Your task to perform on an android device: turn off picture-in-picture Image 0: 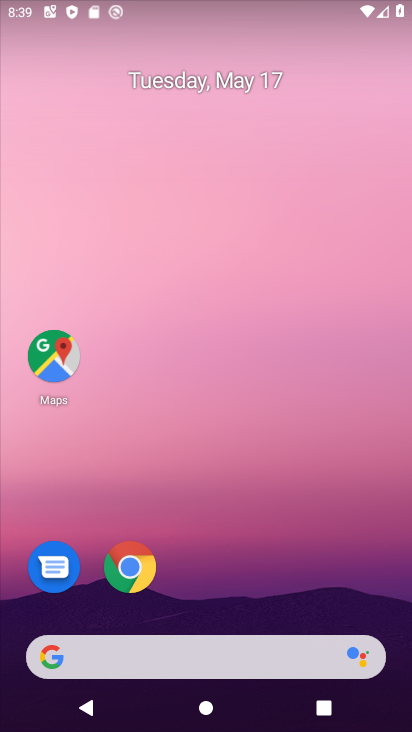
Step 0: drag from (260, 493) to (196, 118)
Your task to perform on an android device: turn off picture-in-picture Image 1: 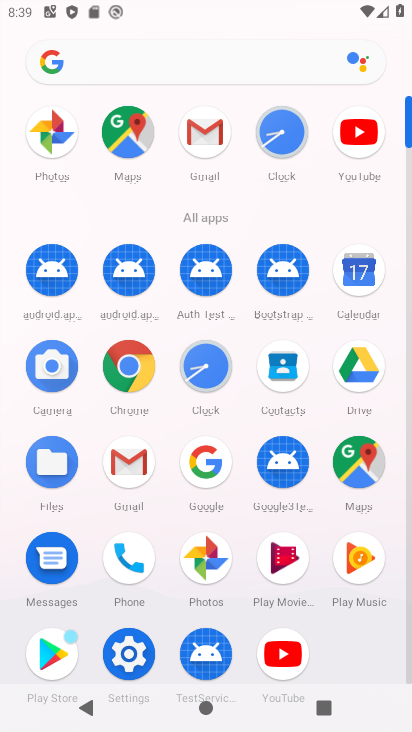
Step 1: click (122, 663)
Your task to perform on an android device: turn off picture-in-picture Image 2: 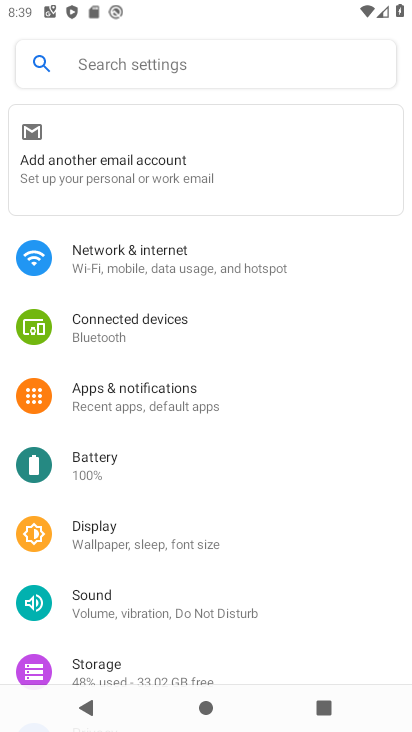
Step 2: click (113, 387)
Your task to perform on an android device: turn off picture-in-picture Image 3: 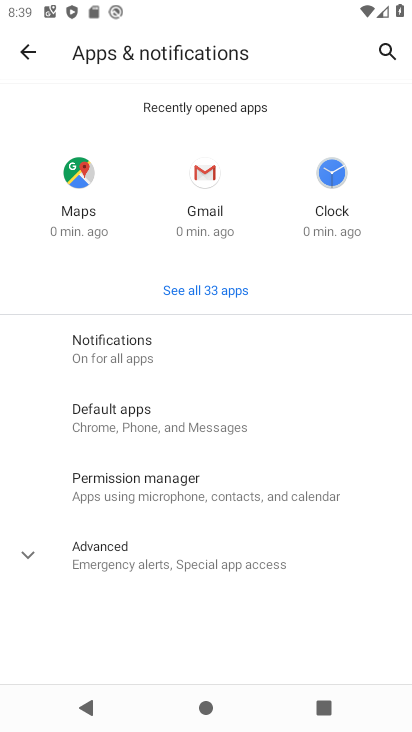
Step 3: click (86, 554)
Your task to perform on an android device: turn off picture-in-picture Image 4: 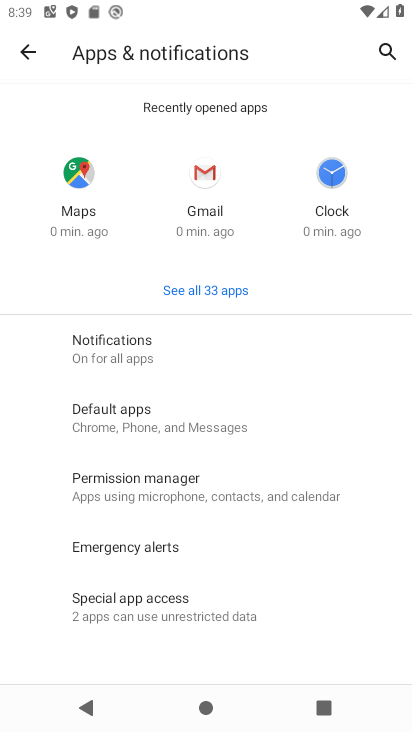
Step 4: drag from (210, 566) to (155, 376)
Your task to perform on an android device: turn off picture-in-picture Image 5: 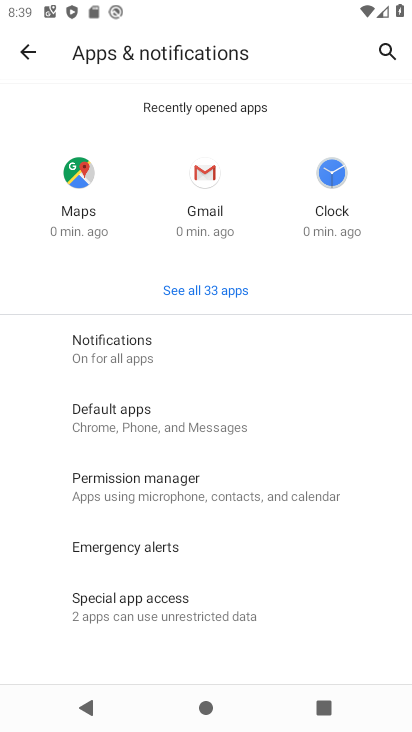
Step 5: click (114, 598)
Your task to perform on an android device: turn off picture-in-picture Image 6: 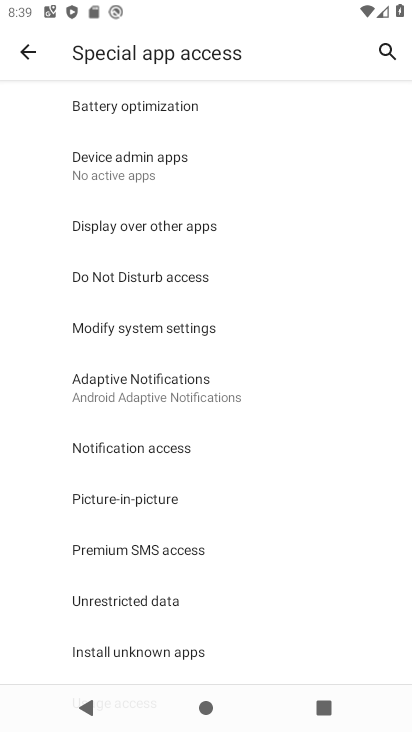
Step 6: click (138, 498)
Your task to perform on an android device: turn off picture-in-picture Image 7: 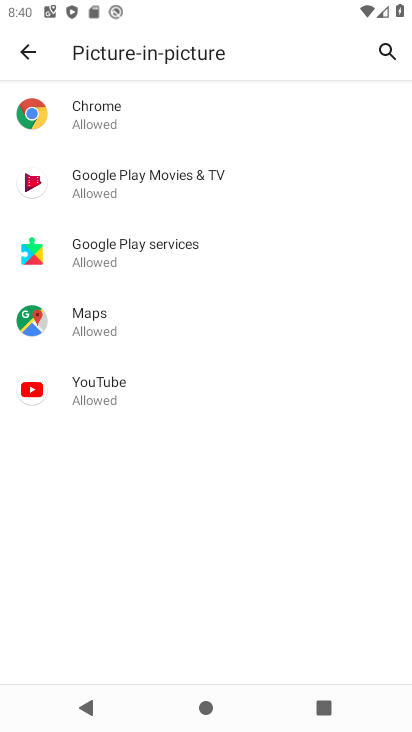
Step 7: click (91, 117)
Your task to perform on an android device: turn off picture-in-picture Image 8: 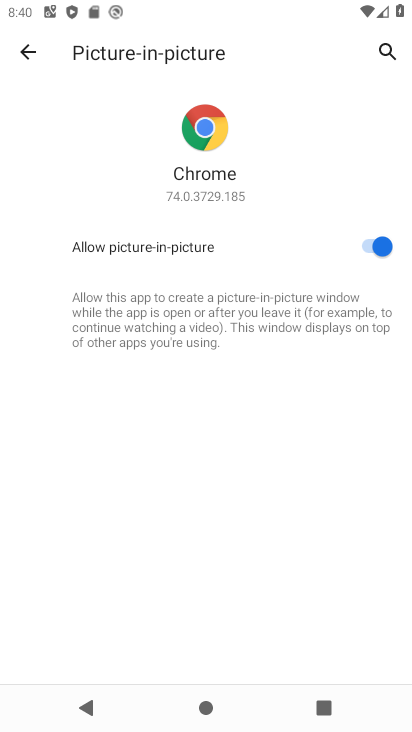
Step 8: click (374, 234)
Your task to perform on an android device: turn off picture-in-picture Image 9: 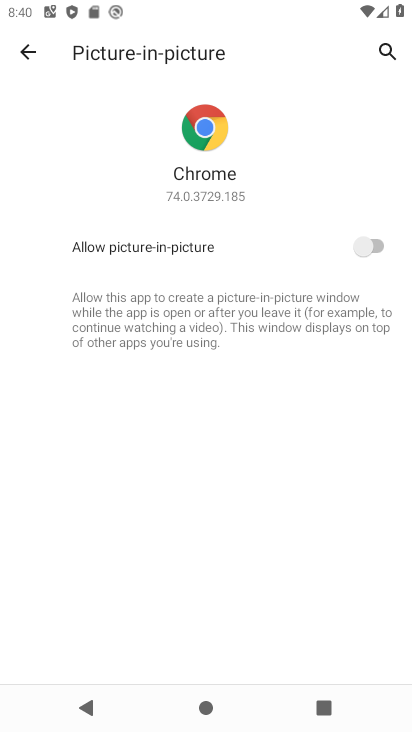
Step 9: click (27, 50)
Your task to perform on an android device: turn off picture-in-picture Image 10: 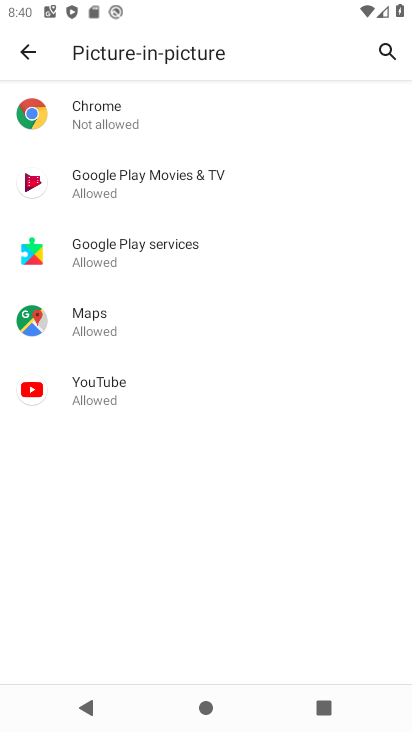
Step 10: click (99, 179)
Your task to perform on an android device: turn off picture-in-picture Image 11: 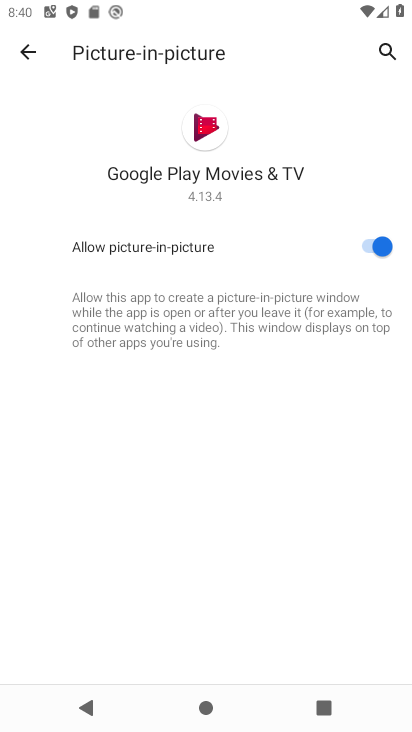
Step 11: click (368, 251)
Your task to perform on an android device: turn off picture-in-picture Image 12: 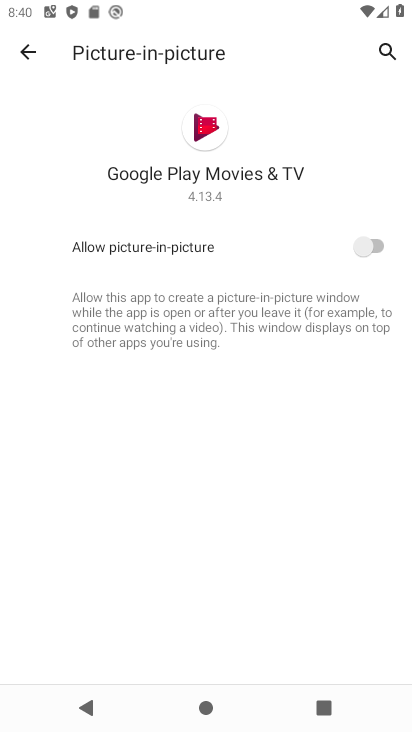
Step 12: click (22, 53)
Your task to perform on an android device: turn off picture-in-picture Image 13: 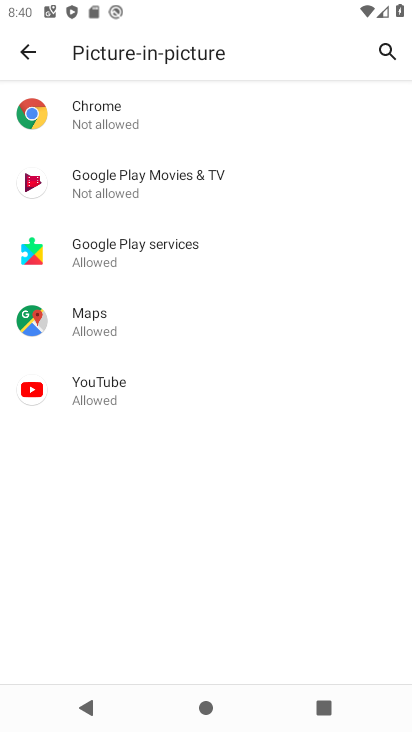
Step 13: click (99, 256)
Your task to perform on an android device: turn off picture-in-picture Image 14: 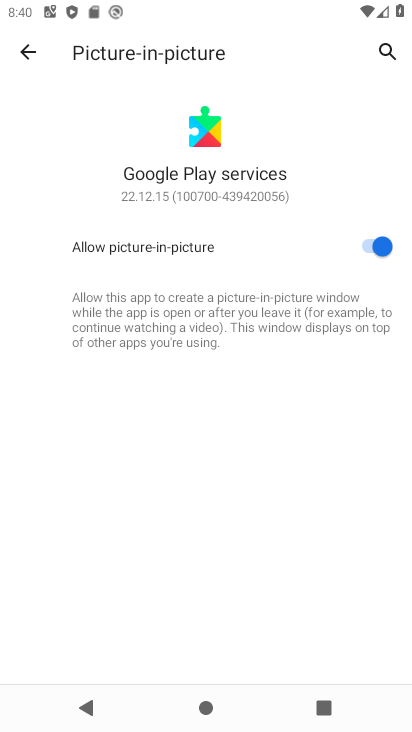
Step 14: click (370, 240)
Your task to perform on an android device: turn off picture-in-picture Image 15: 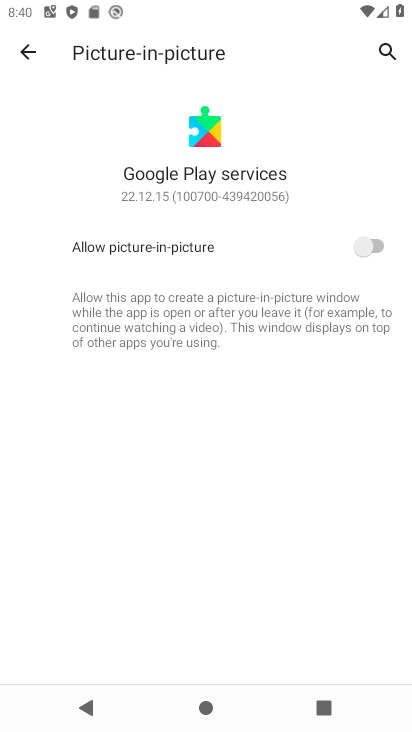
Step 15: click (28, 51)
Your task to perform on an android device: turn off picture-in-picture Image 16: 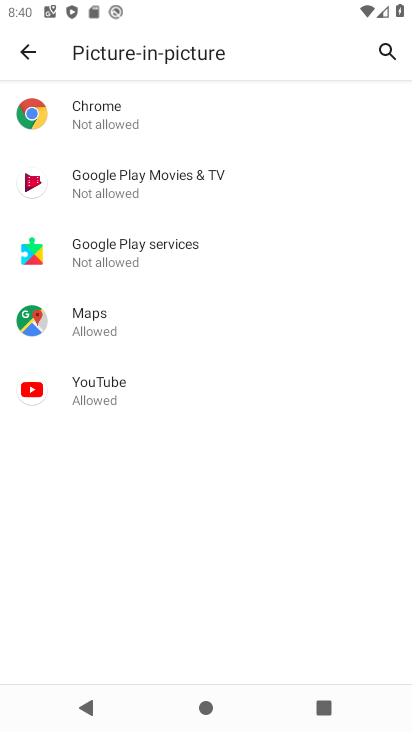
Step 16: click (96, 311)
Your task to perform on an android device: turn off picture-in-picture Image 17: 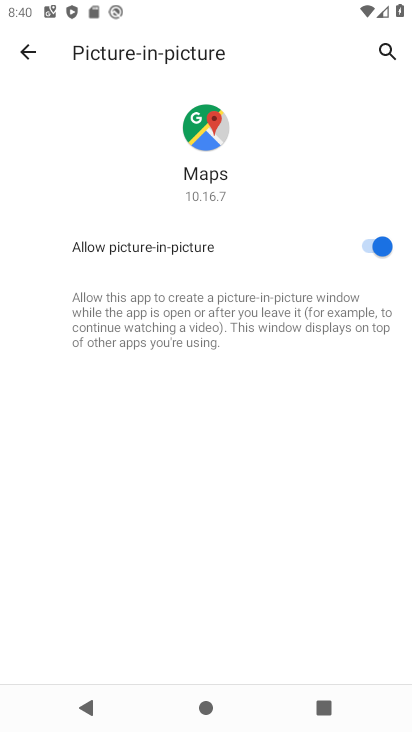
Step 17: click (376, 243)
Your task to perform on an android device: turn off picture-in-picture Image 18: 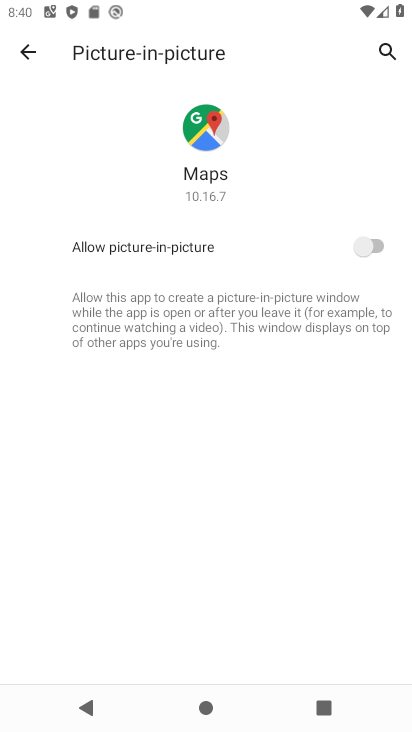
Step 18: click (28, 46)
Your task to perform on an android device: turn off picture-in-picture Image 19: 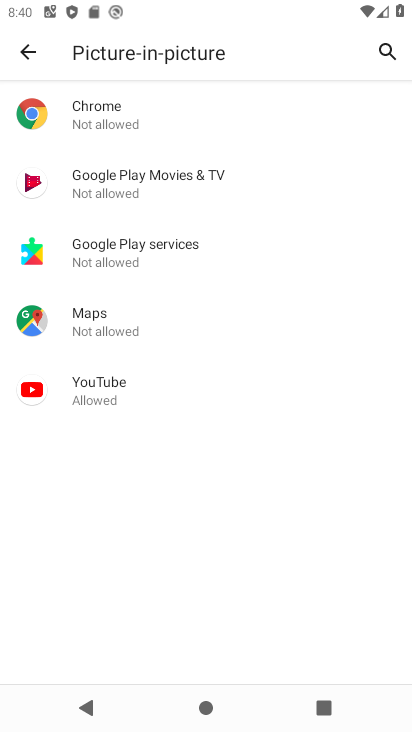
Step 19: click (102, 382)
Your task to perform on an android device: turn off picture-in-picture Image 20: 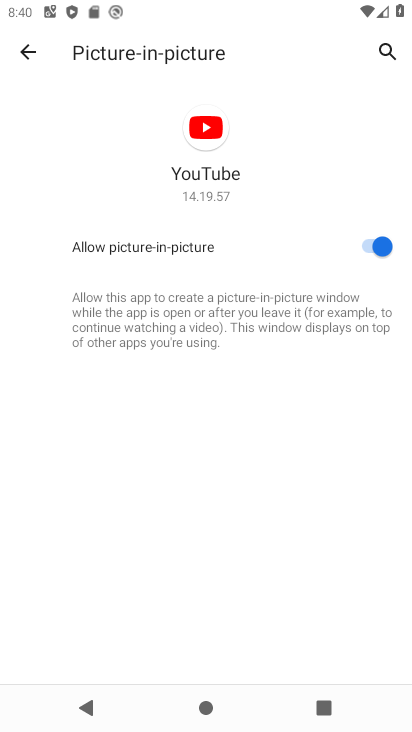
Step 20: click (384, 250)
Your task to perform on an android device: turn off picture-in-picture Image 21: 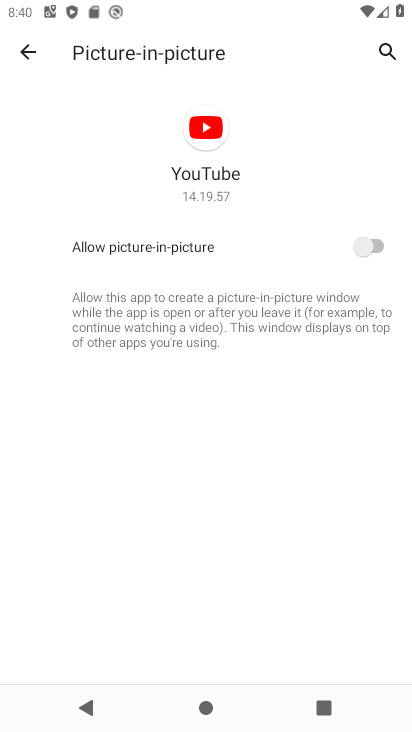
Step 21: click (29, 52)
Your task to perform on an android device: turn off picture-in-picture Image 22: 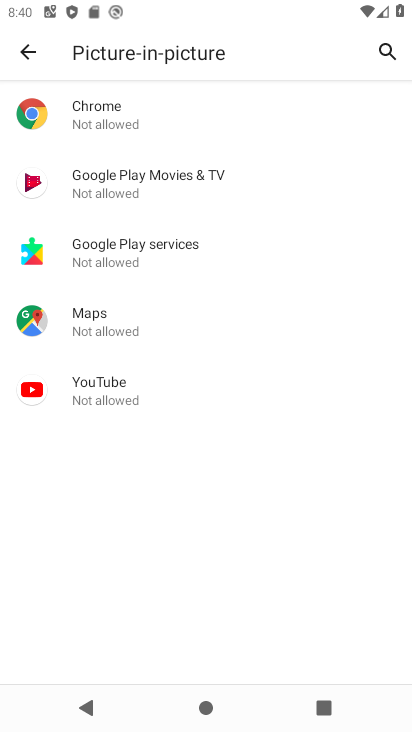
Step 22: task complete